Your task to perform on an android device: Open Google Chrome Image 0: 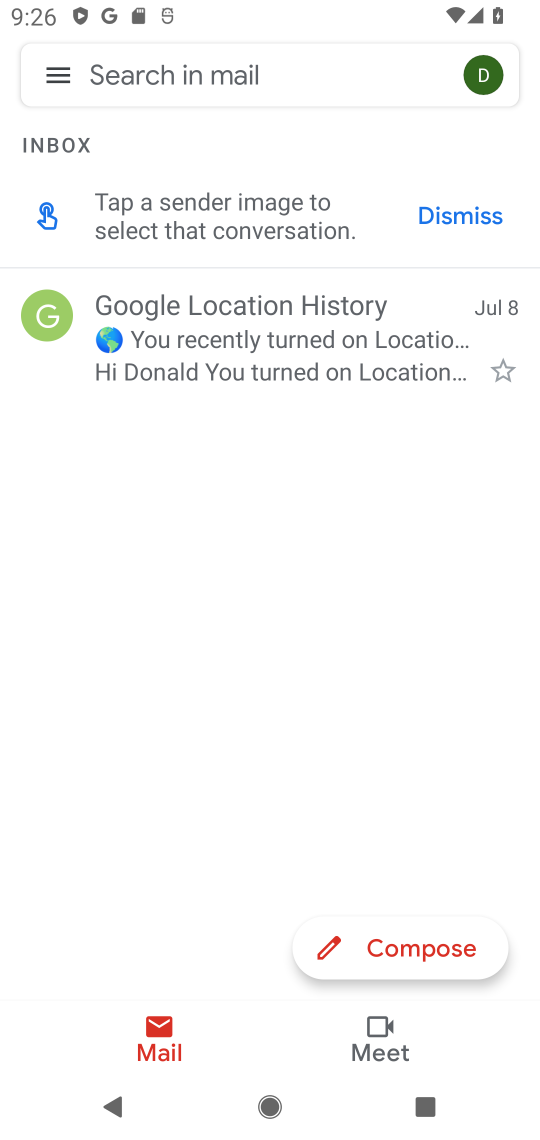
Step 0: press home button
Your task to perform on an android device: Open Google Chrome Image 1: 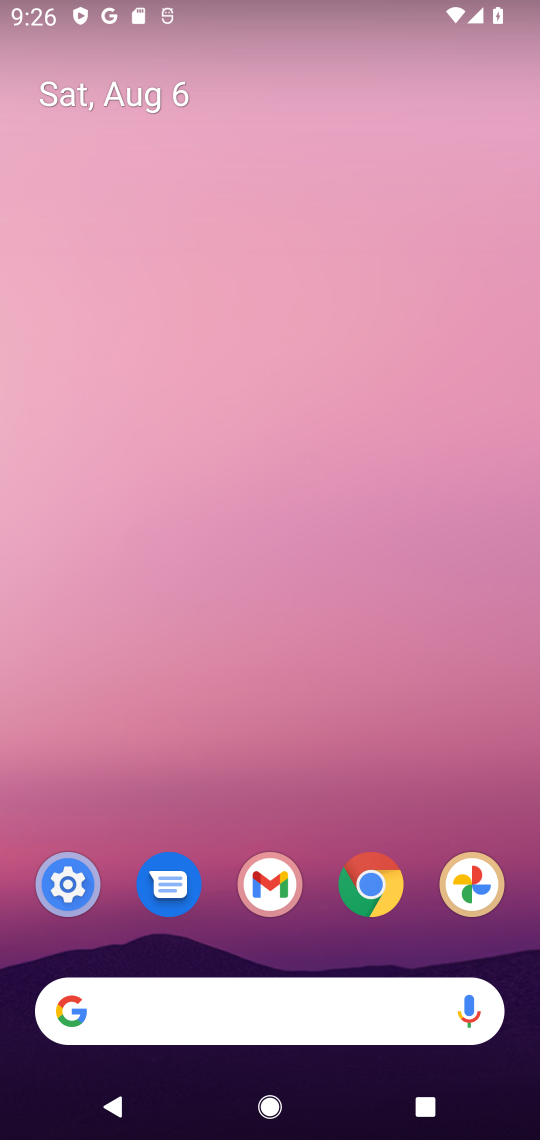
Step 1: click (372, 878)
Your task to perform on an android device: Open Google Chrome Image 2: 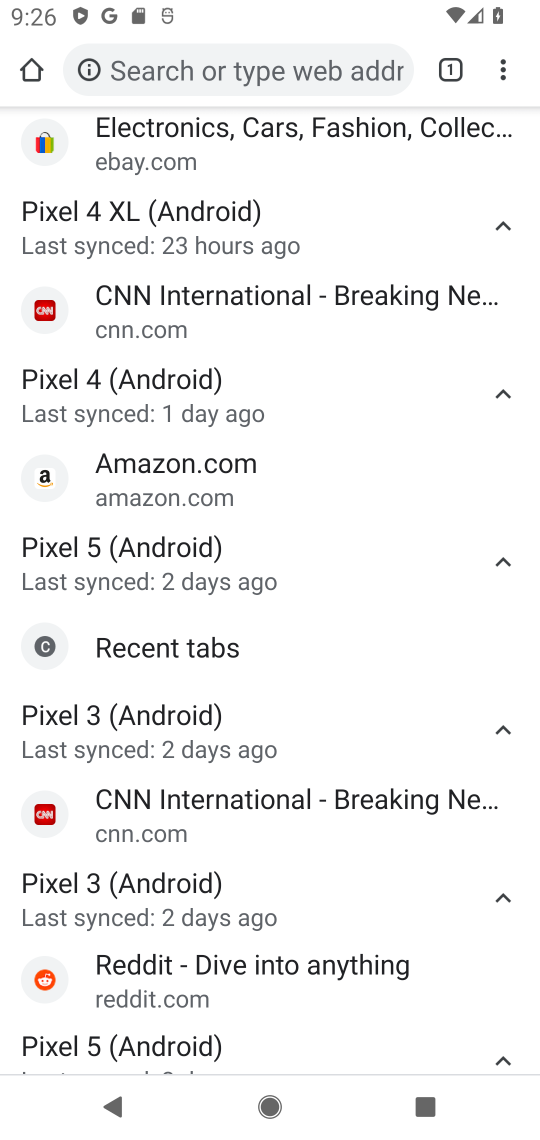
Step 2: task complete